Your task to perform on an android device: Open ESPN.com Image 0: 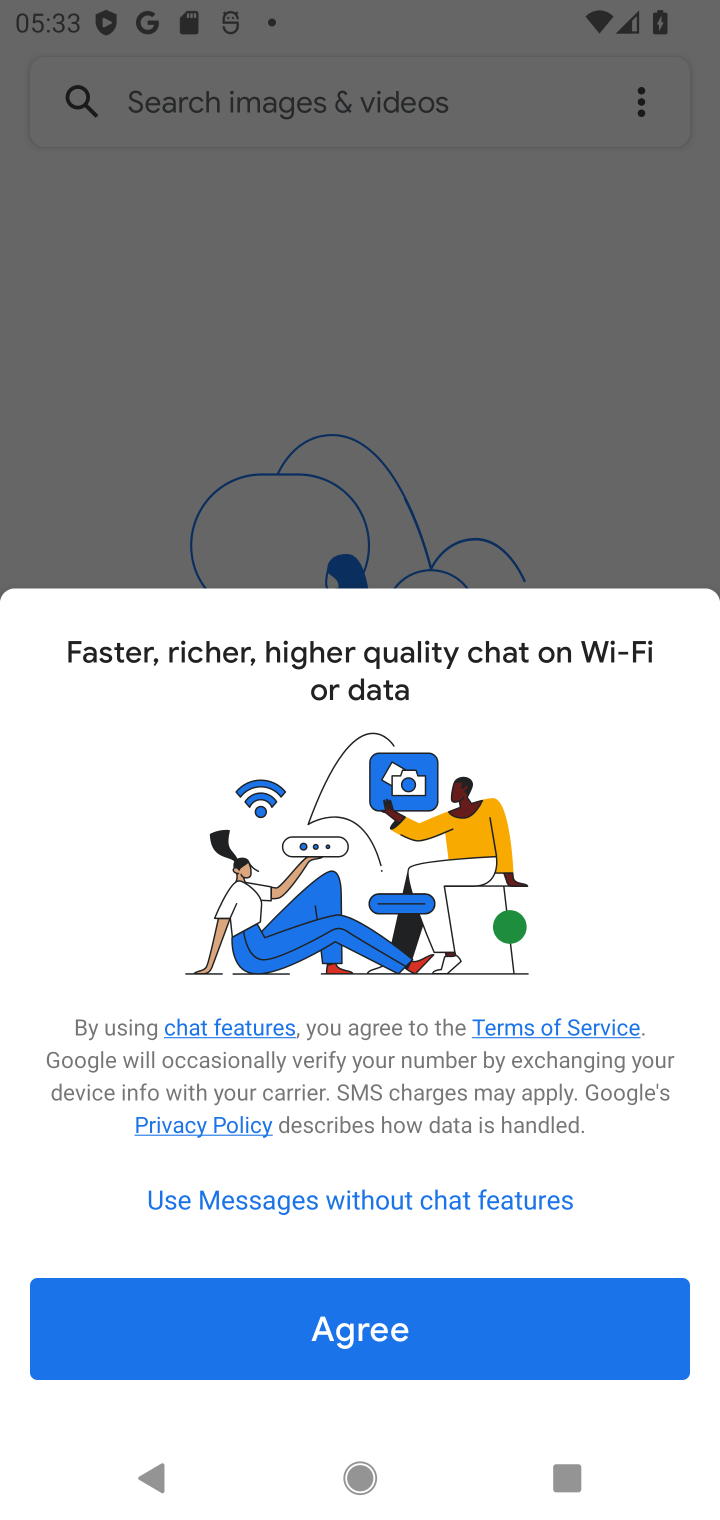
Step 0: press home button
Your task to perform on an android device: Open ESPN.com Image 1: 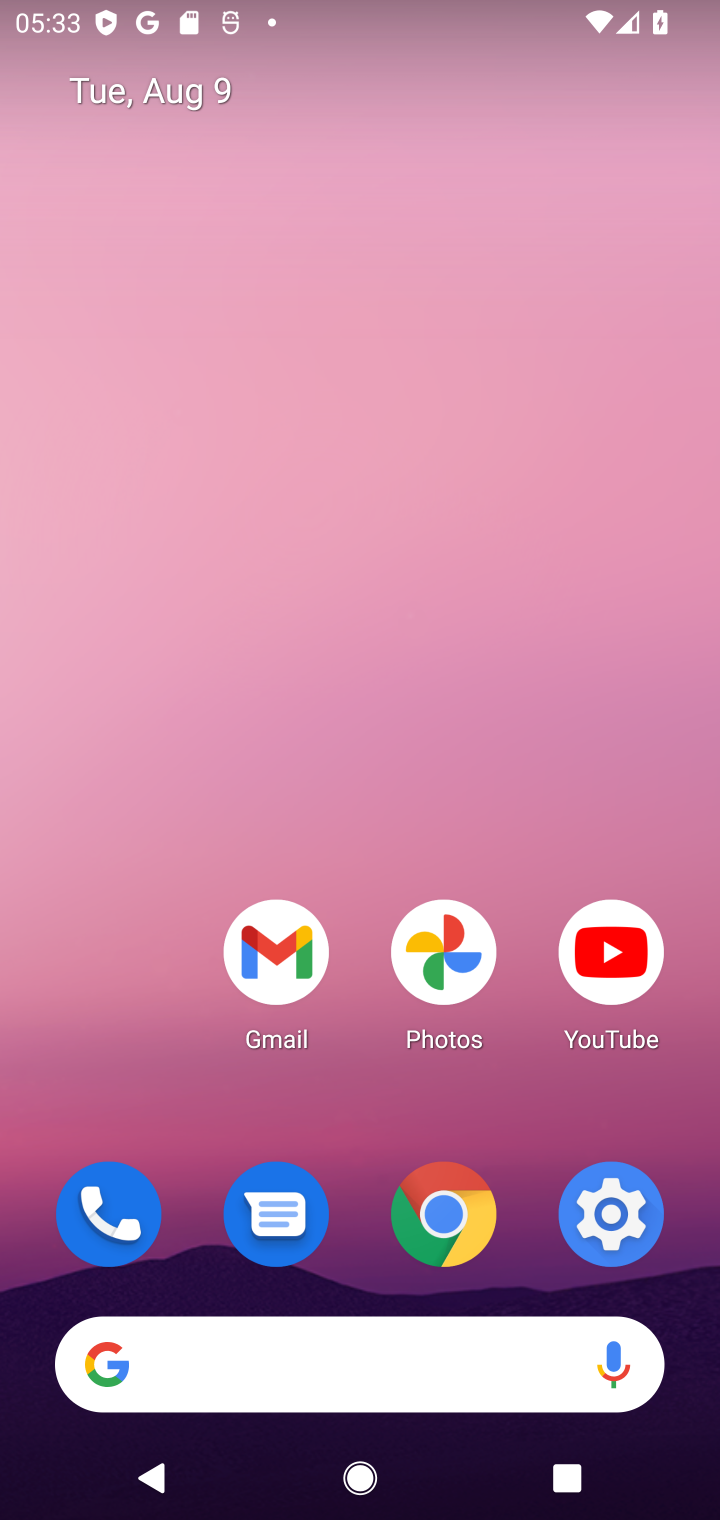
Step 1: click (445, 1191)
Your task to perform on an android device: Open ESPN.com Image 2: 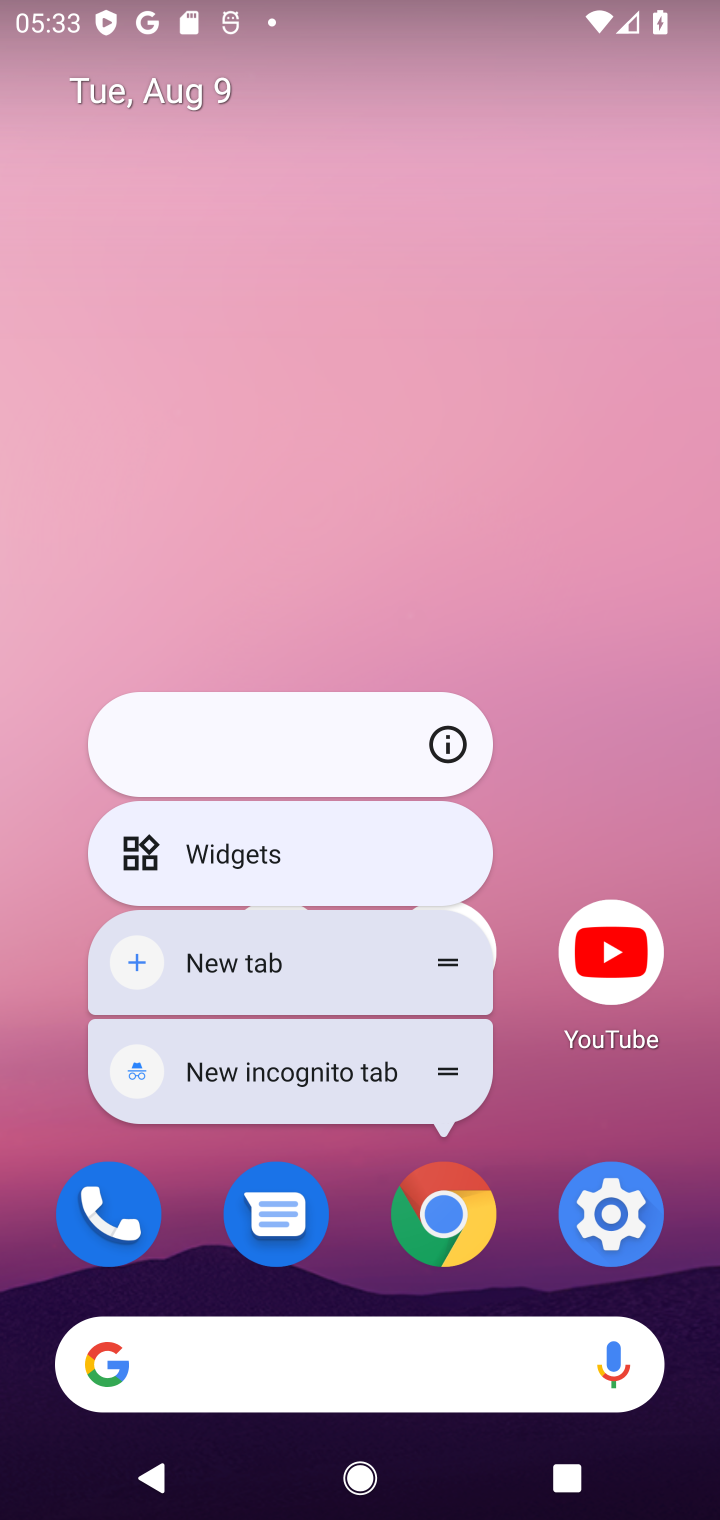
Step 2: click (454, 1220)
Your task to perform on an android device: Open ESPN.com Image 3: 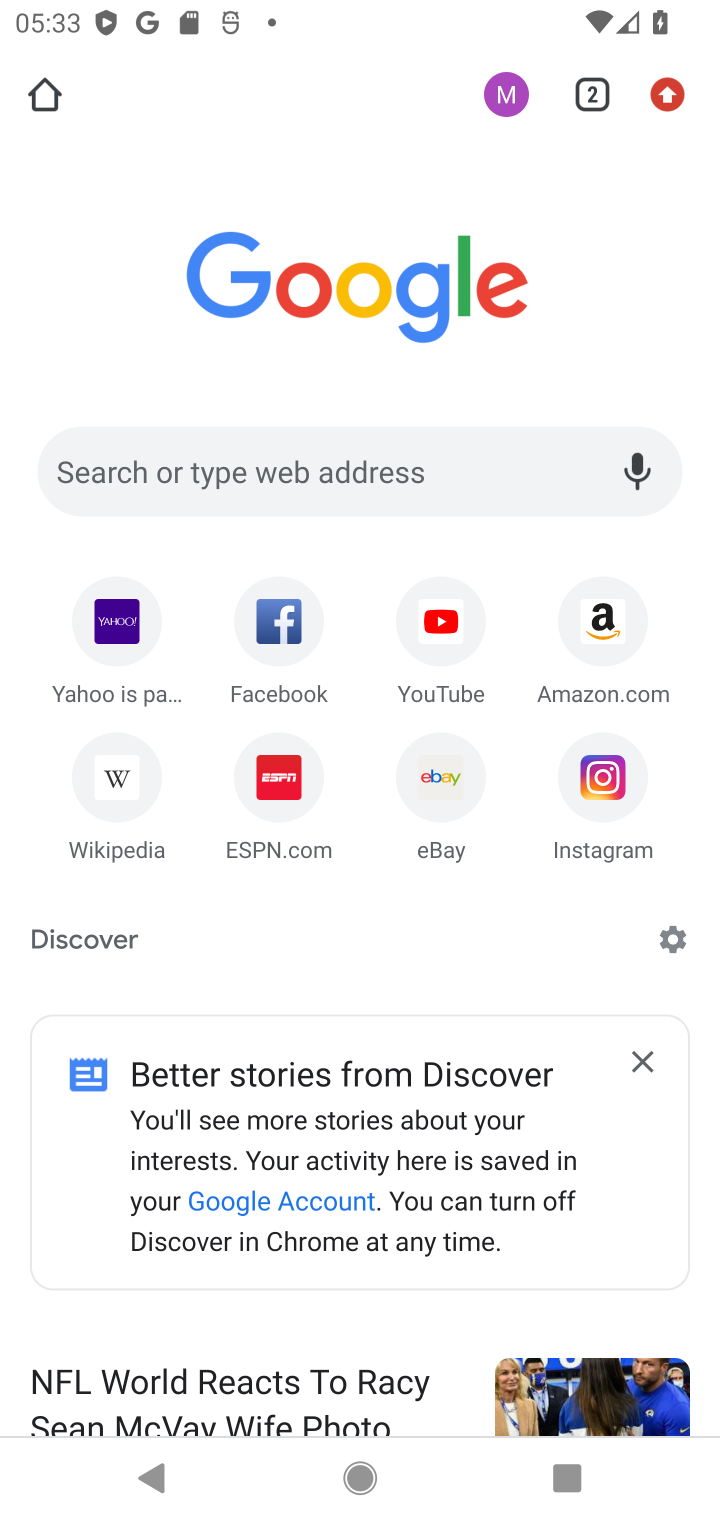
Step 3: click (275, 784)
Your task to perform on an android device: Open ESPN.com Image 4: 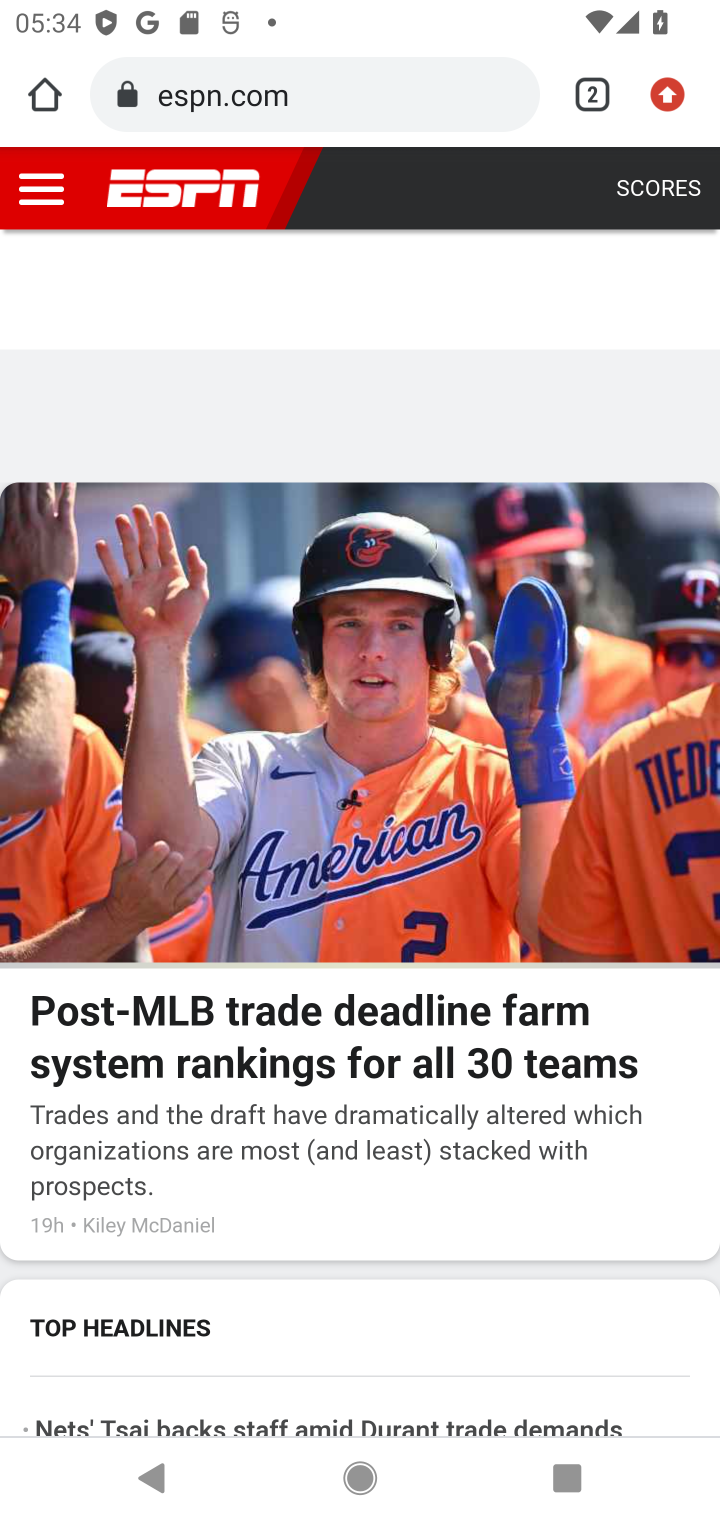
Step 4: task complete